Your task to perform on an android device: add a contact Image 0: 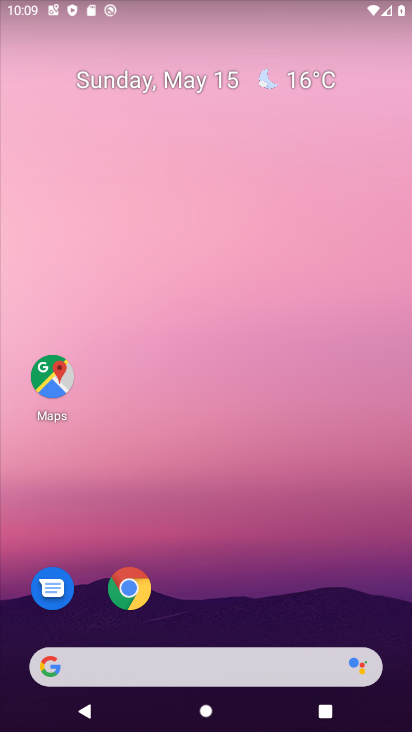
Step 0: drag from (221, 577) to (310, 47)
Your task to perform on an android device: add a contact Image 1: 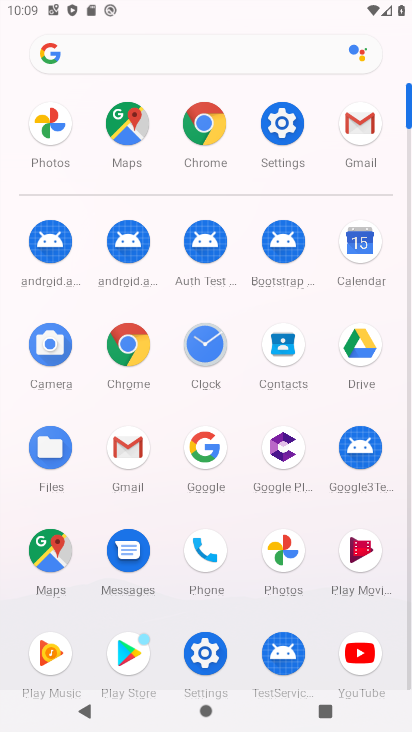
Step 1: click (293, 361)
Your task to perform on an android device: add a contact Image 2: 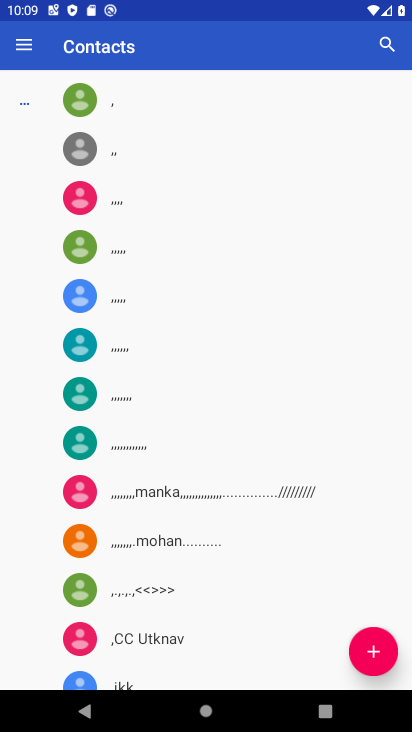
Step 2: click (366, 645)
Your task to perform on an android device: add a contact Image 3: 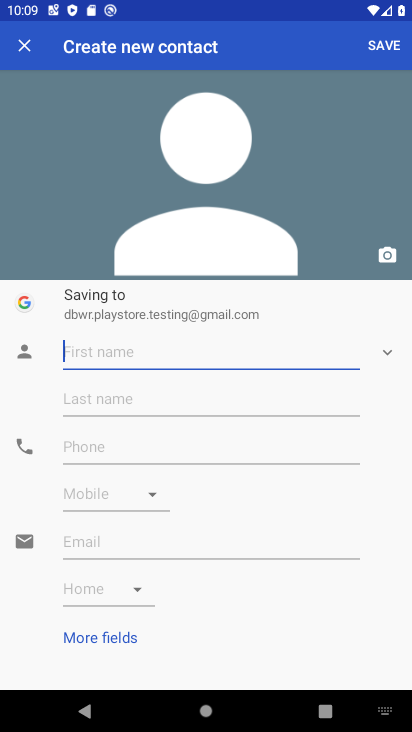
Step 3: type "bhjj"
Your task to perform on an android device: add a contact Image 4: 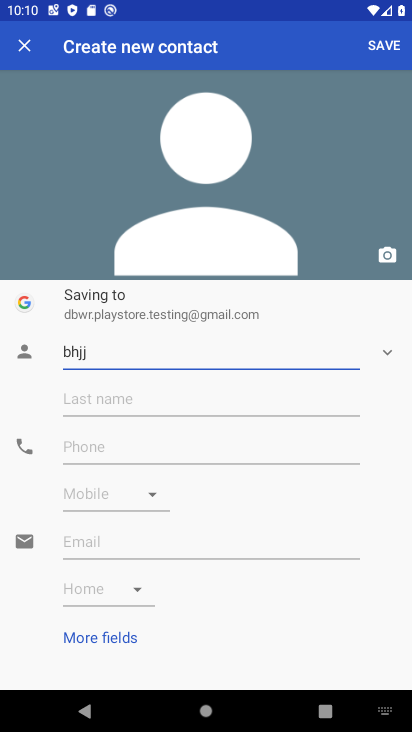
Step 4: click (104, 433)
Your task to perform on an android device: add a contact Image 5: 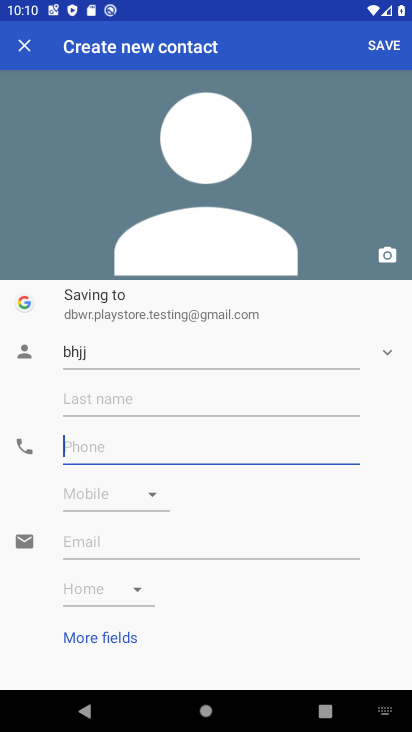
Step 5: type "345467"
Your task to perform on an android device: add a contact Image 6: 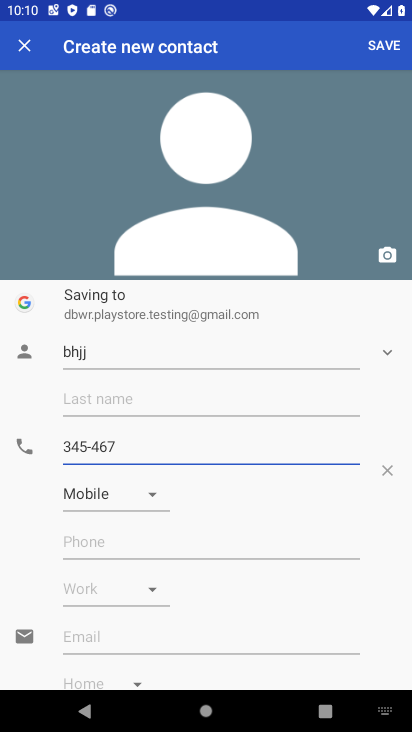
Step 6: click (385, 45)
Your task to perform on an android device: add a contact Image 7: 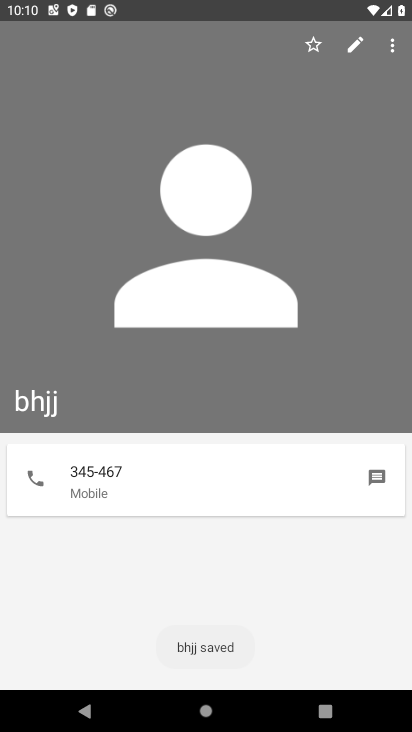
Step 7: task complete